Your task to perform on an android device: Open Maps and search for coffee Image 0: 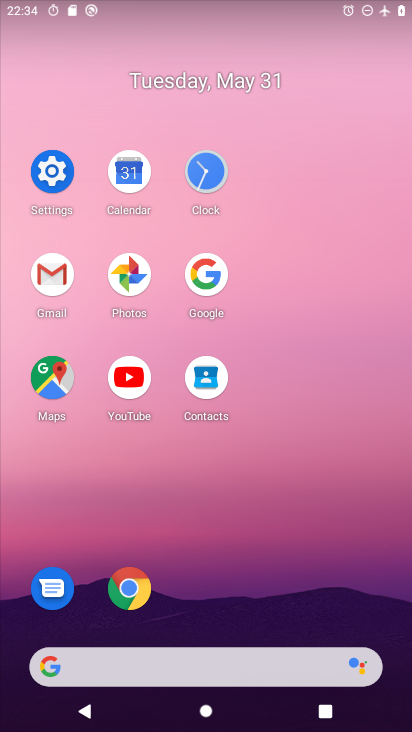
Step 0: click (59, 376)
Your task to perform on an android device: Open Maps and search for coffee Image 1: 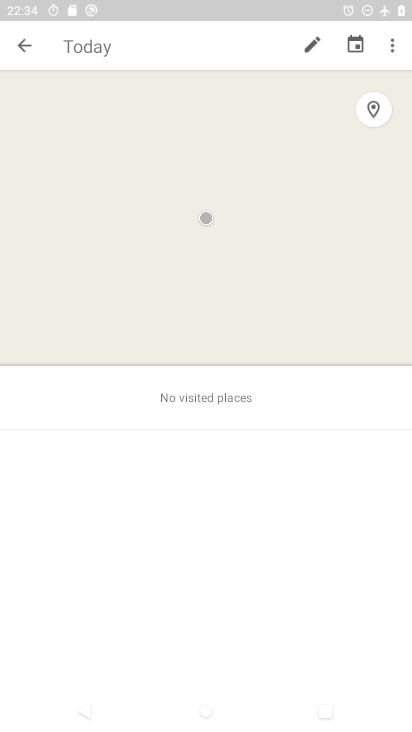
Step 1: click (34, 45)
Your task to perform on an android device: Open Maps and search for coffee Image 2: 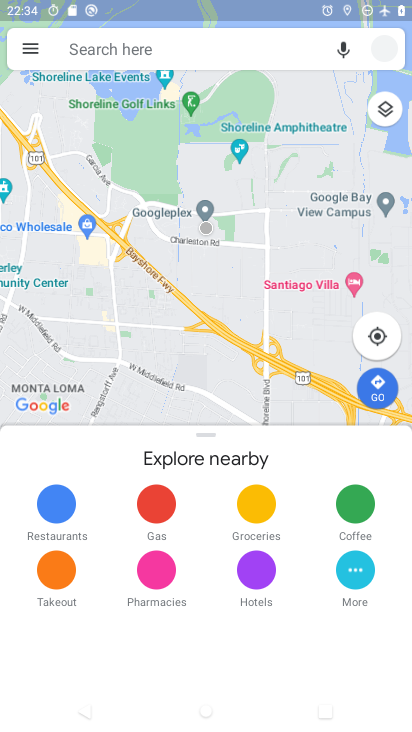
Step 2: click (150, 61)
Your task to perform on an android device: Open Maps and search for coffee Image 3: 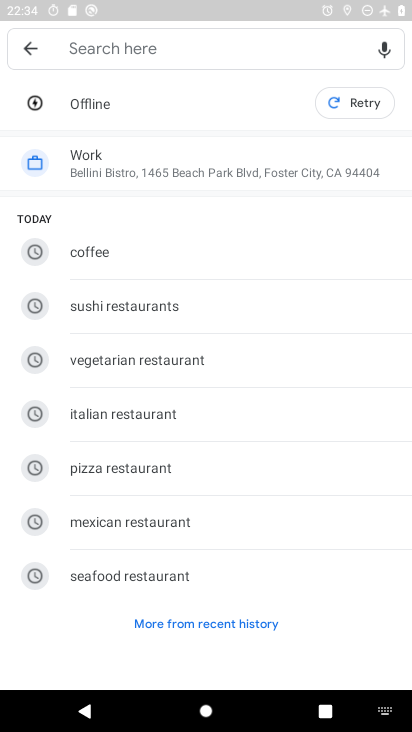
Step 3: click (138, 244)
Your task to perform on an android device: Open Maps and search for coffee Image 4: 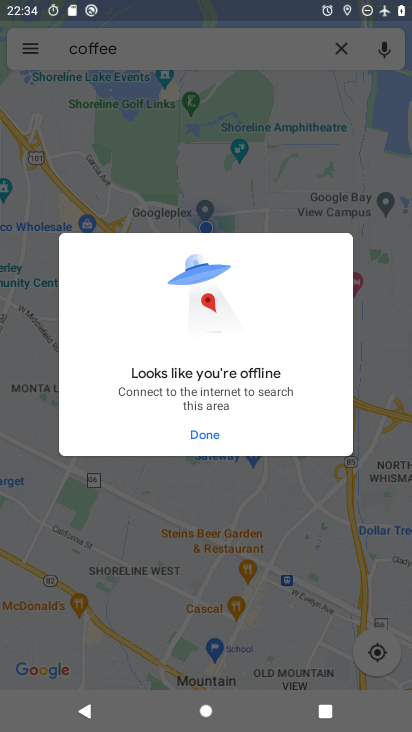
Step 4: task complete